Your task to perform on an android device: Do I have any events this weekend? Image 0: 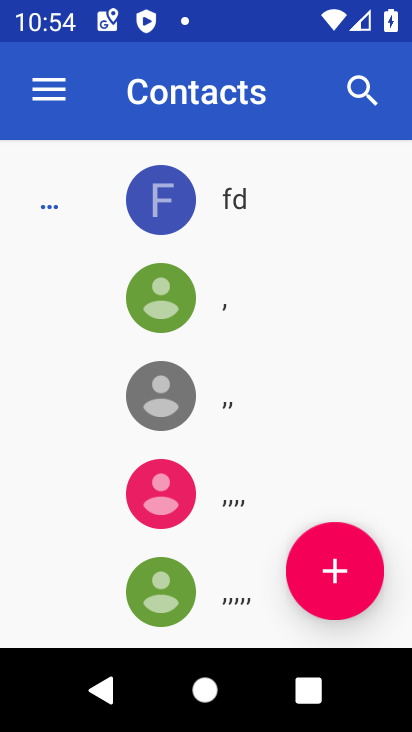
Step 0: press back button
Your task to perform on an android device: Do I have any events this weekend? Image 1: 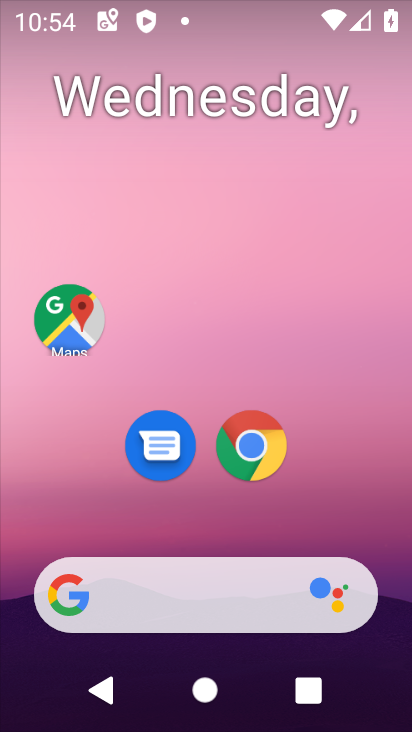
Step 1: click (253, 593)
Your task to perform on an android device: Do I have any events this weekend? Image 2: 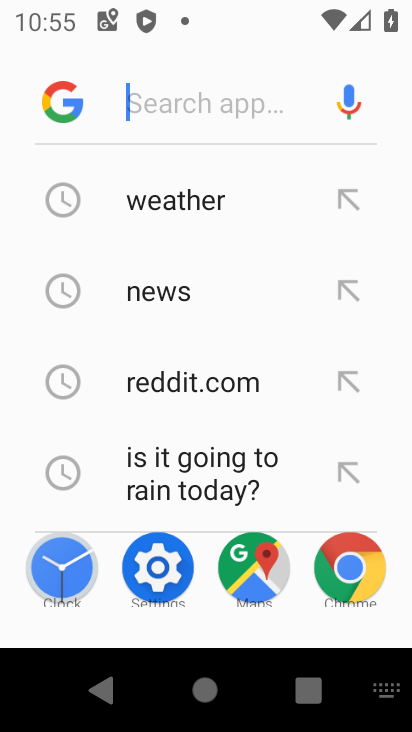
Step 2: press back button
Your task to perform on an android device: Do I have any events this weekend? Image 3: 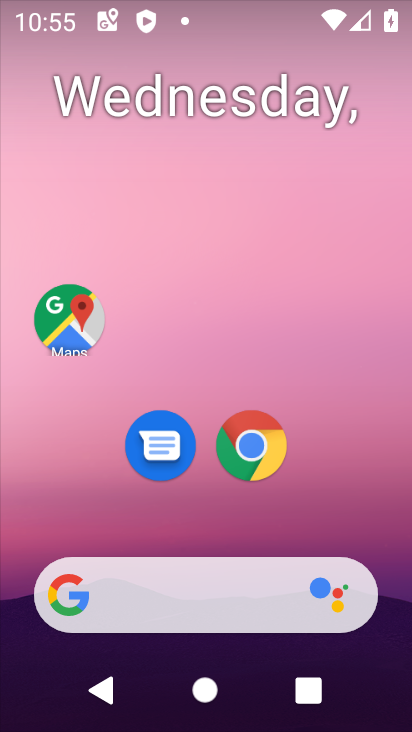
Step 3: drag from (353, 340) to (47, 342)
Your task to perform on an android device: Do I have any events this weekend? Image 4: 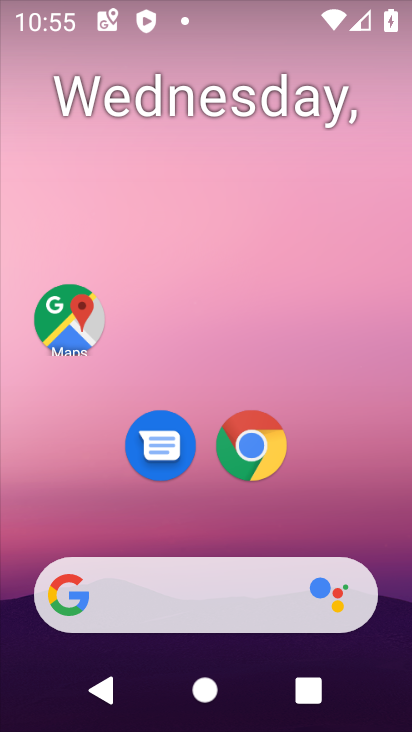
Step 4: drag from (174, 547) to (244, 34)
Your task to perform on an android device: Do I have any events this weekend? Image 5: 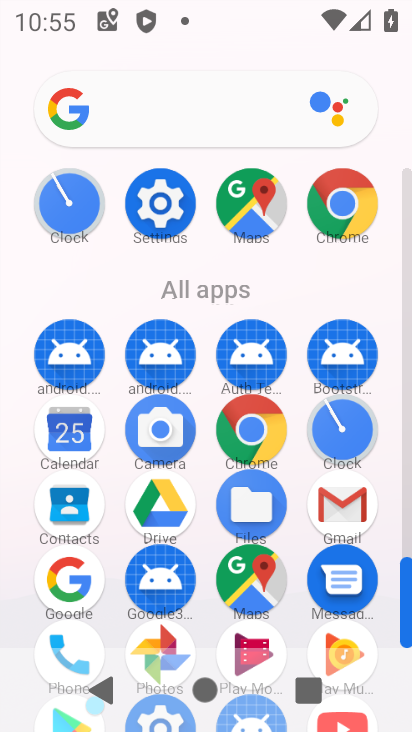
Step 5: click (62, 440)
Your task to perform on an android device: Do I have any events this weekend? Image 6: 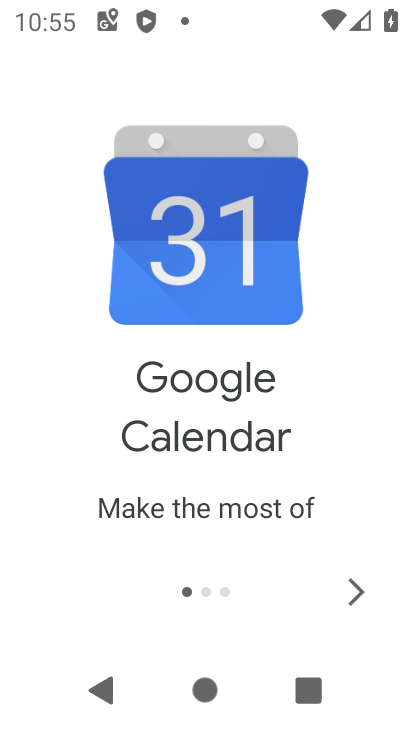
Step 6: click (338, 578)
Your task to perform on an android device: Do I have any events this weekend? Image 7: 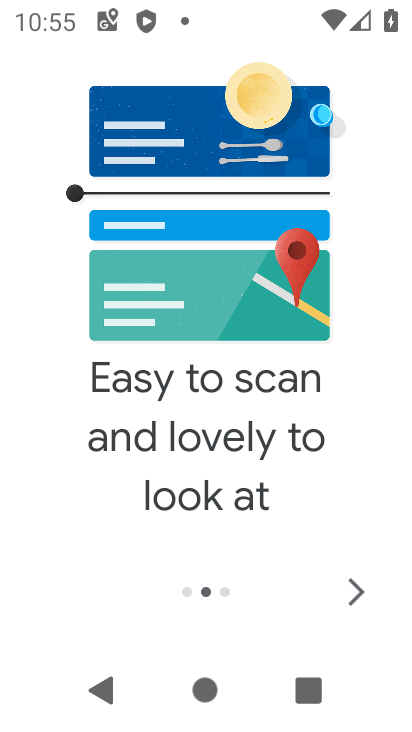
Step 7: click (342, 583)
Your task to perform on an android device: Do I have any events this weekend? Image 8: 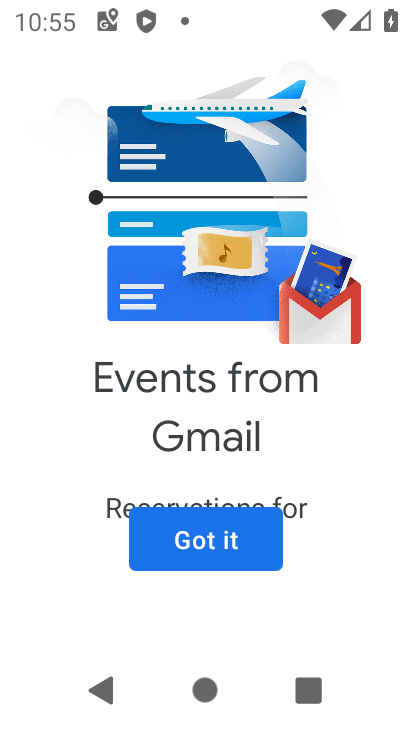
Step 8: click (216, 537)
Your task to perform on an android device: Do I have any events this weekend? Image 9: 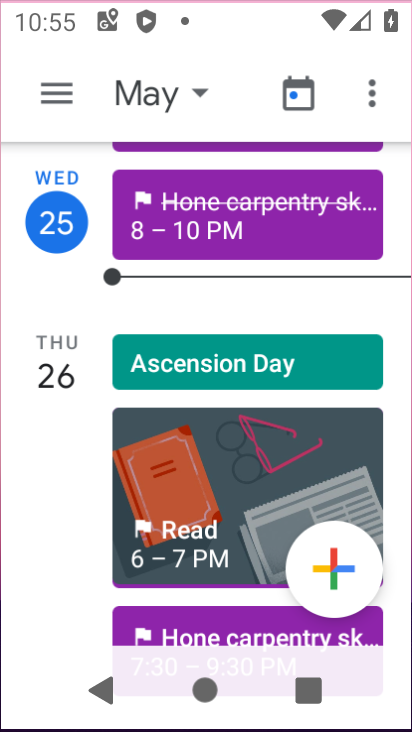
Step 9: click (204, 543)
Your task to perform on an android device: Do I have any events this weekend? Image 10: 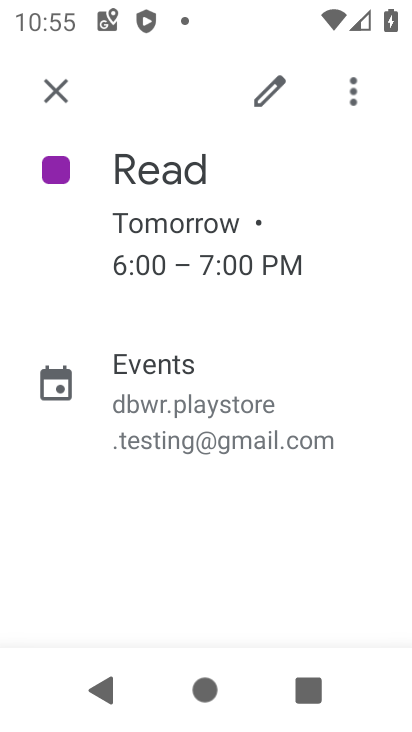
Step 10: click (55, 83)
Your task to perform on an android device: Do I have any events this weekend? Image 11: 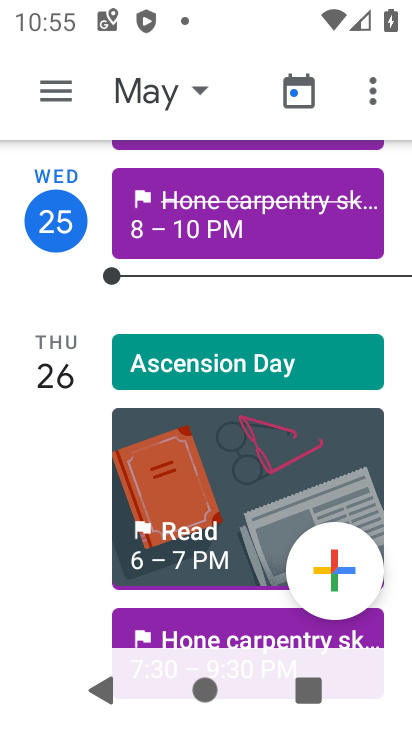
Step 11: drag from (183, 622) to (260, 66)
Your task to perform on an android device: Do I have any events this weekend? Image 12: 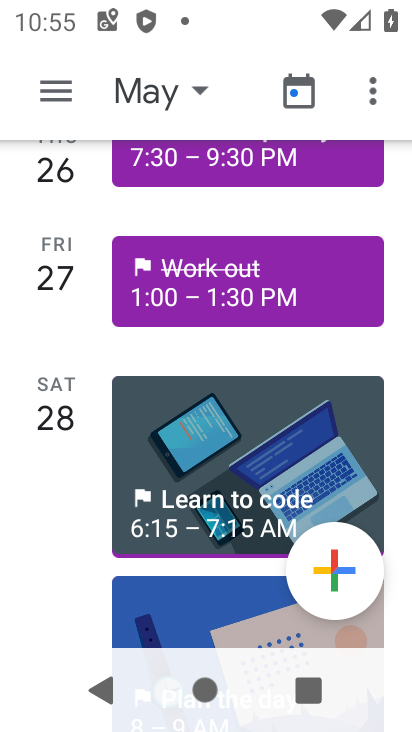
Step 12: drag from (146, 575) to (224, 220)
Your task to perform on an android device: Do I have any events this weekend? Image 13: 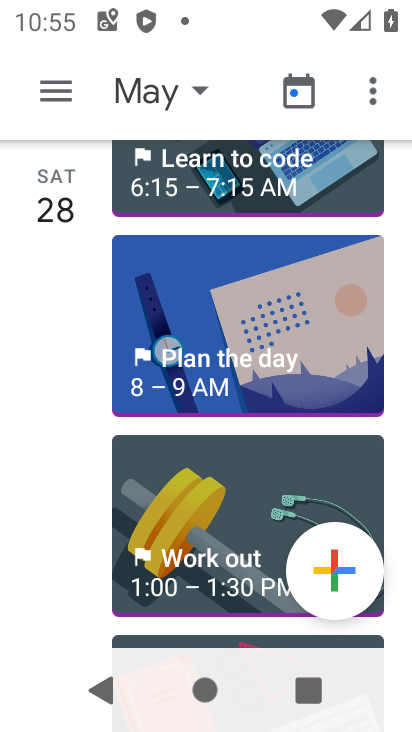
Step 13: drag from (182, 646) to (255, 183)
Your task to perform on an android device: Do I have any events this weekend? Image 14: 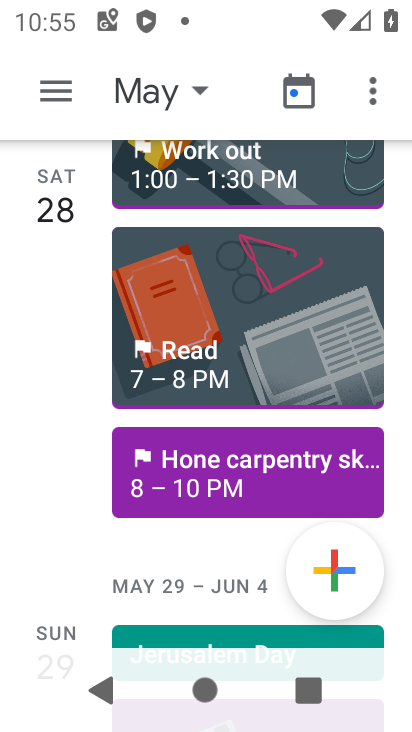
Step 14: drag from (170, 585) to (264, 228)
Your task to perform on an android device: Do I have any events this weekend? Image 15: 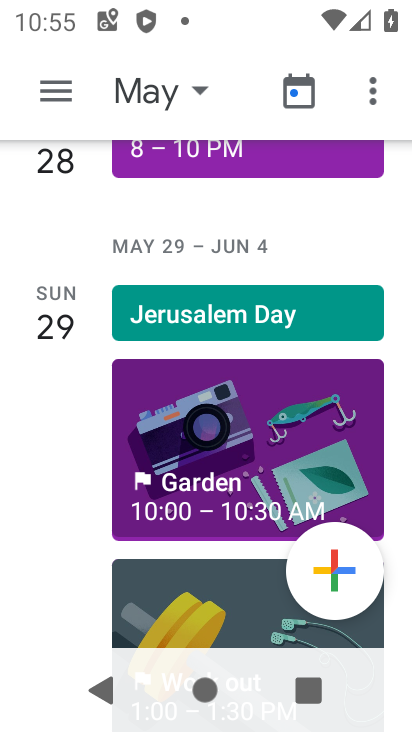
Step 15: click (179, 312)
Your task to perform on an android device: Do I have any events this weekend? Image 16: 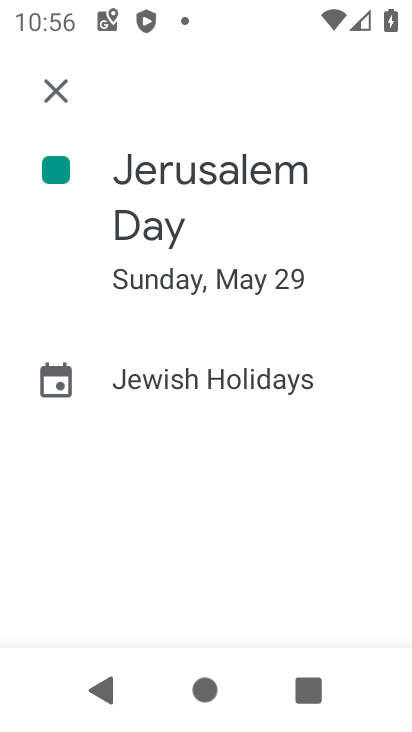
Step 16: task complete